Your task to perform on an android device: See recent photos Image 0: 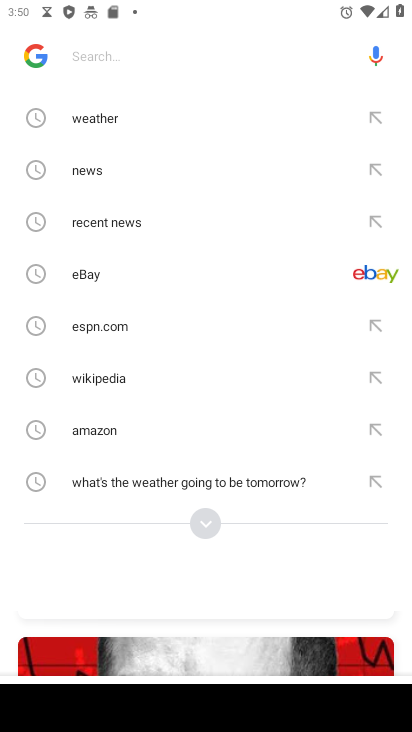
Step 0: press back button
Your task to perform on an android device: See recent photos Image 1: 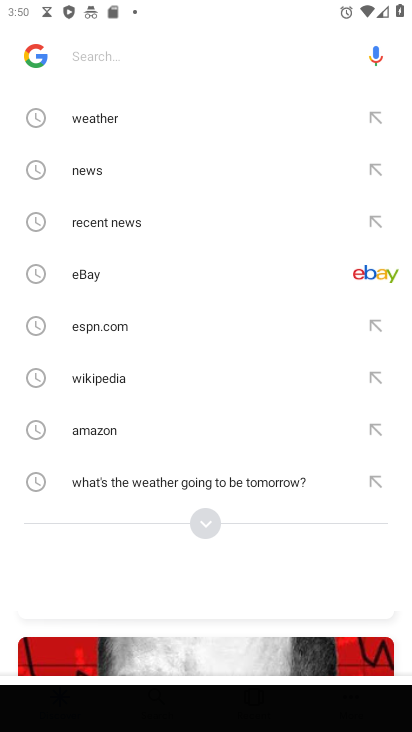
Step 1: press back button
Your task to perform on an android device: See recent photos Image 2: 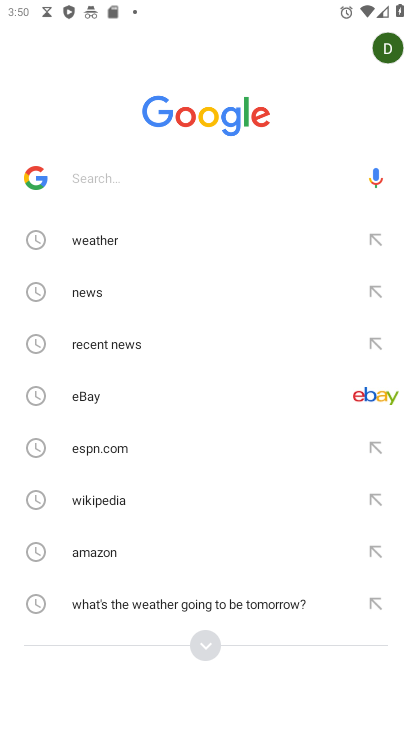
Step 2: press back button
Your task to perform on an android device: See recent photos Image 3: 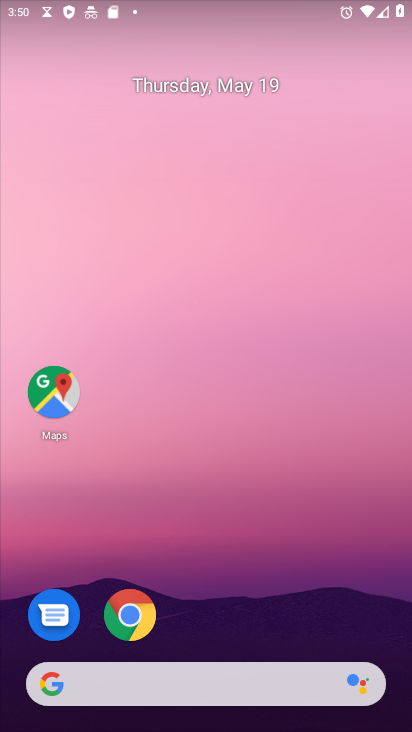
Step 3: drag from (303, 677) to (227, 0)
Your task to perform on an android device: See recent photos Image 4: 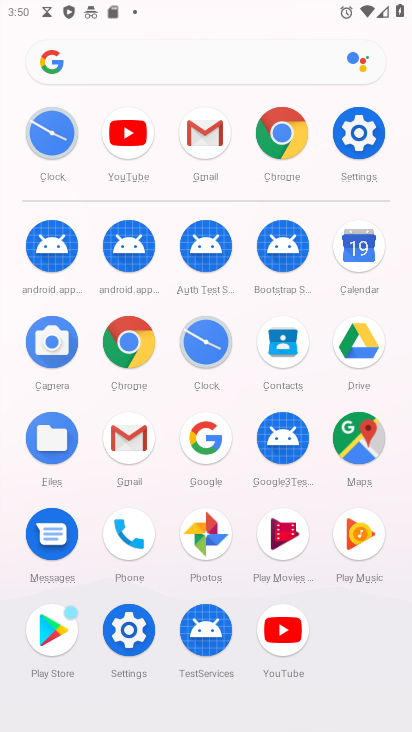
Step 4: click (209, 530)
Your task to perform on an android device: See recent photos Image 5: 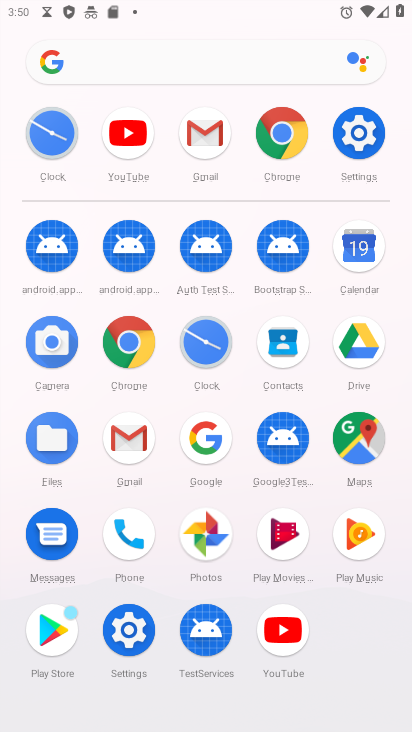
Step 5: click (209, 530)
Your task to perform on an android device: See recent photos Image 6: 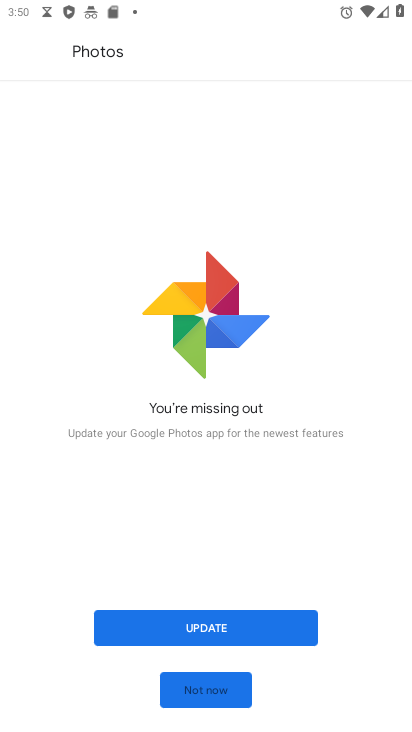
Step 6: click (212, 695)
Your task to perform on an android device: See recent photos Image 7: 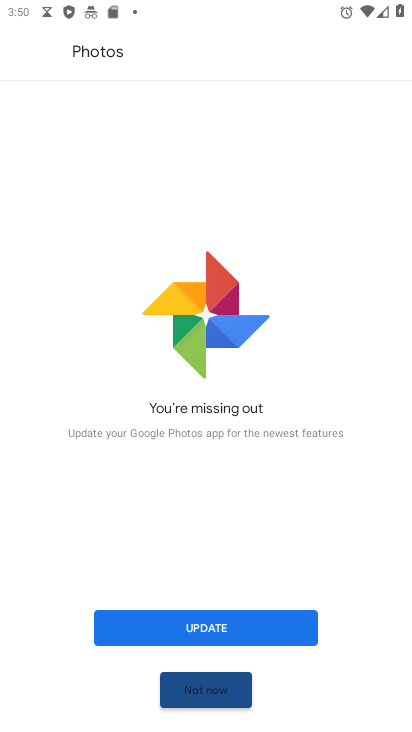
Step 7: click (216, 695)
Your task to perform on an android device: See recent photos Image 8: 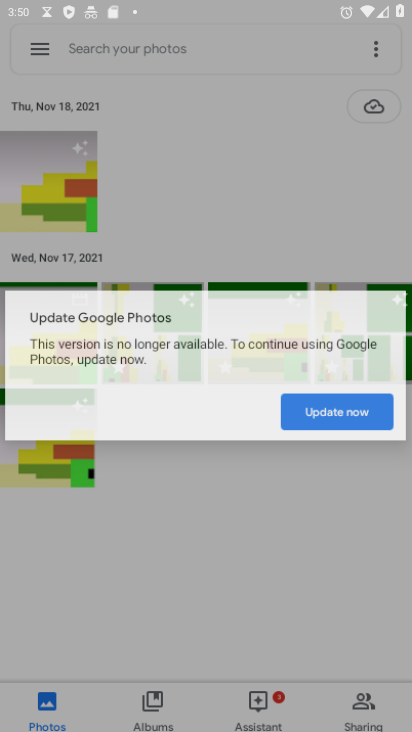
Step 8: click (216, 695)
Your task to perform on an android device: See recent photos Image 9: 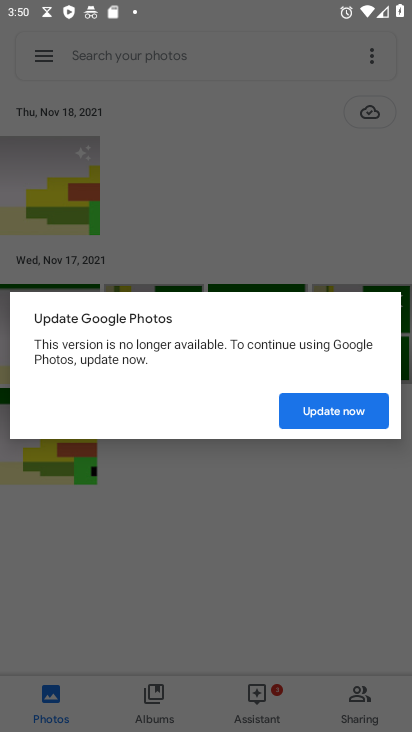
Step 9: click (316, 401)
Your task to perform on an android device: See recent photos Image 10: 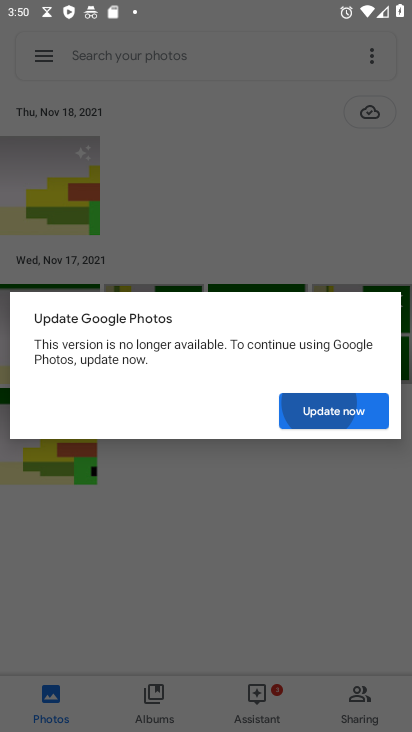
Step 10: click (315, 400)
Your task to perform on an android device: See recent photos Image 11: 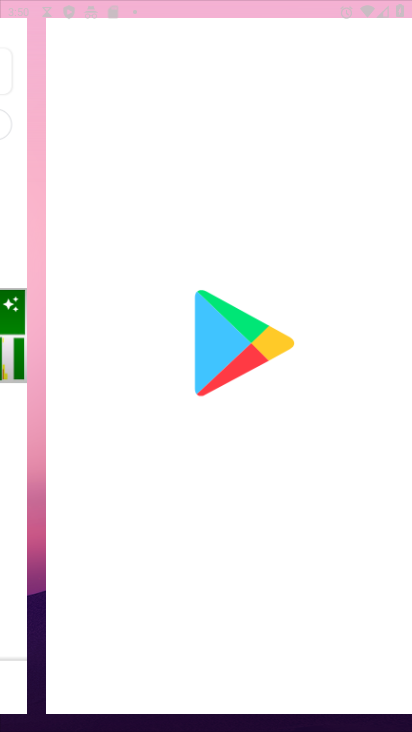
Step 11: click (315, 400)
Your task to perform on an android device: See recent photos Image 12: 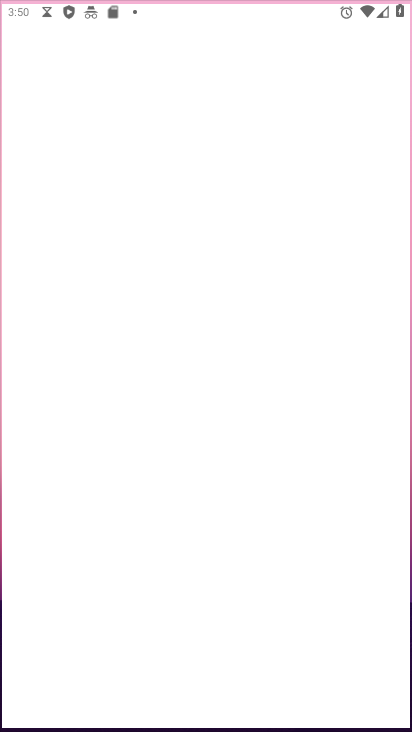
Step 12: click (316, 400)
Your task to perform on an android device: See recent photos Image 13: 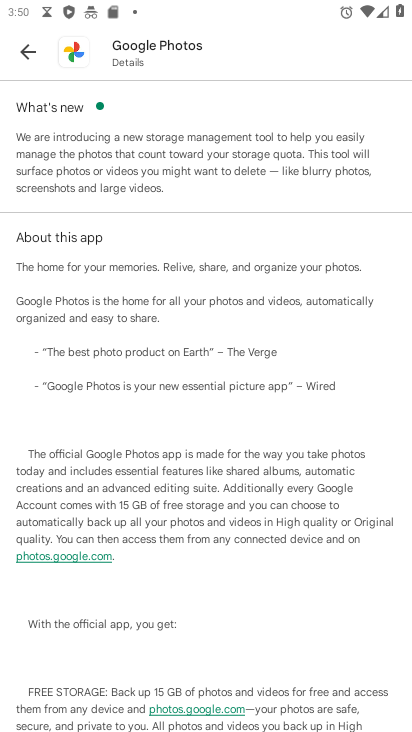
Step 13: click (27, 51)
Your task to perform on an android device: See recent photos Image 14: 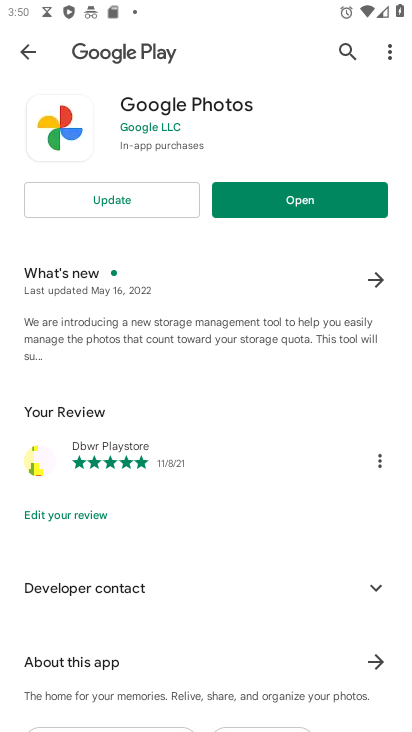
Step 14: click (301, 197)
Your task to perform on an android device: See recent photos Image 15: 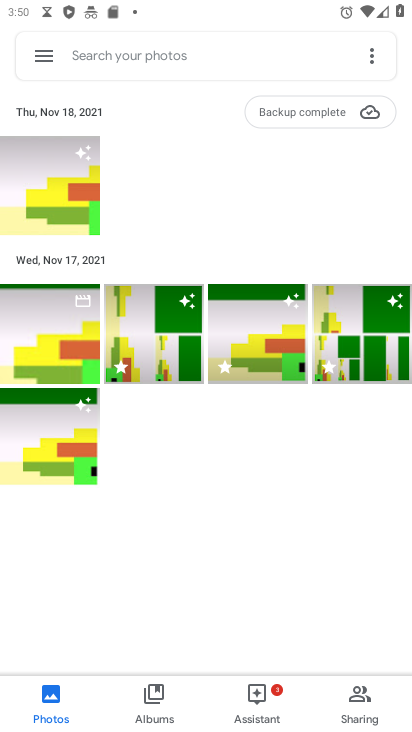
Step 15: task complete